Your task to perform on an android device: Go to Maps Image 0: 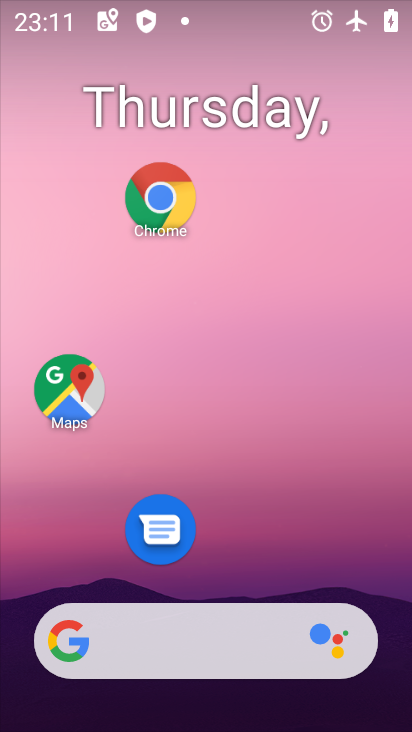
Step 0: click (62, 385)
Your task to perform on an android device: Go to Maps Image 1: 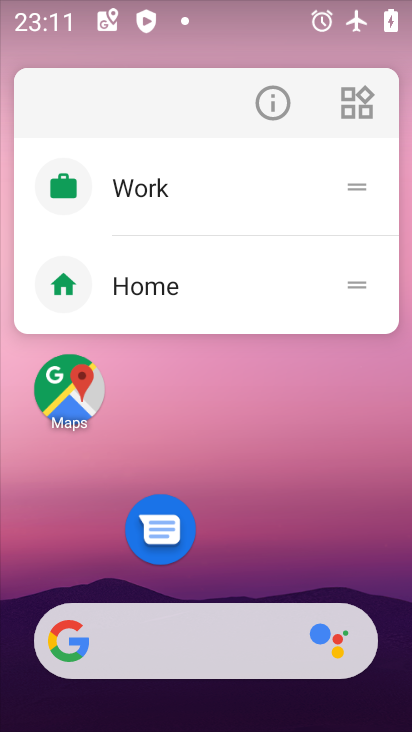
Step 1: click (296, 477)
Your task to perform on an android device: Go to Maps Image 2: 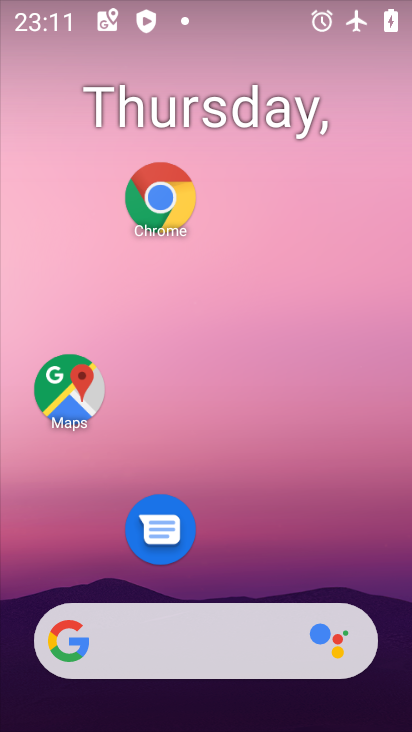
Step 2: click (54, 394)
Your task to perform on an android device: Go to Maps Image 3: 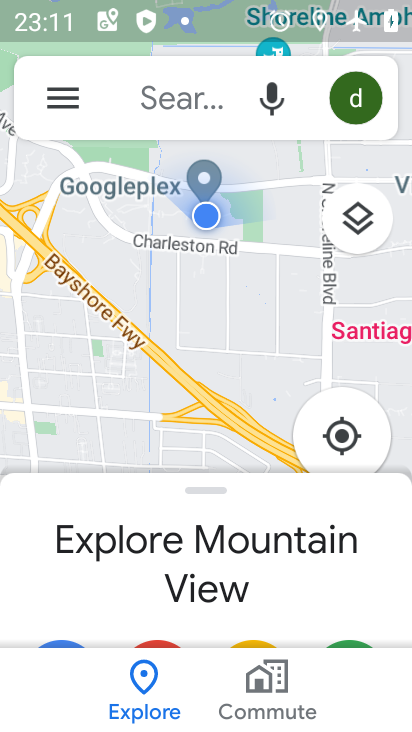
Step 3: task complete